Your task to perform on an android device: Go to Android settings Image 0: 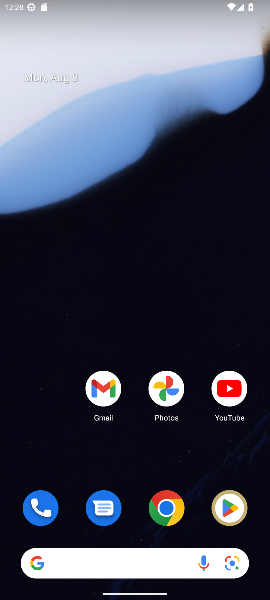
Step 0: drag from (165, 468) to (163, 190)
Your task to perform on an android device: Go to Android settings Image 1: 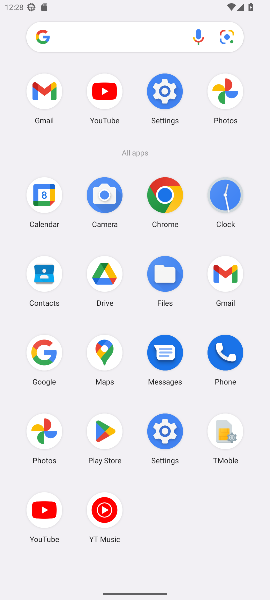
Step 1: click (168, 436)
Your task to perform on an android device: Go to Android settings Image 2: 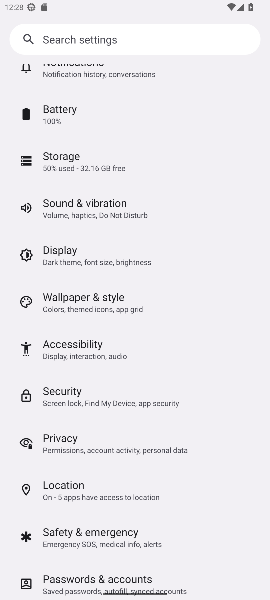
Step 2: task complete